Your task to perform on an android device: Search for dell xps on bestbuy.com, select the first entry, add it to the cart, then select checkout. Image 0: 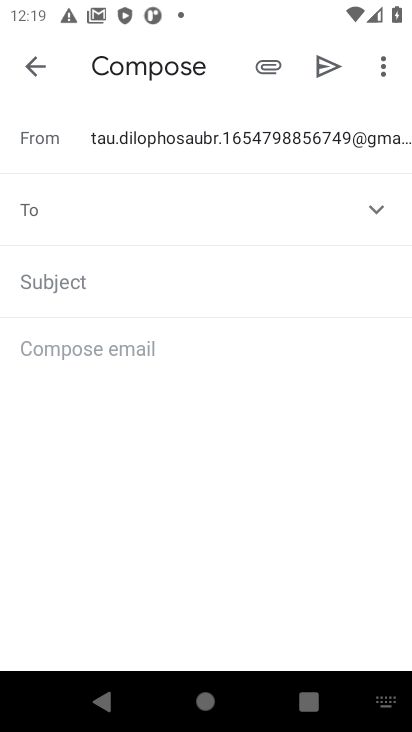
Step 0: press home button
Your task to perform on an android device: Search for dell xps on bestbuy.com, select the first entry, add it to the cart, then select checkout. Image 1: 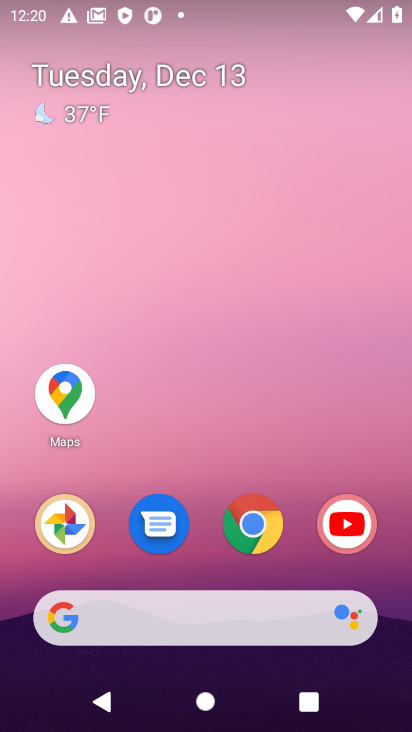
Step 1: click (248, 522)
Your task to perform on an android device: Search for dell xps on bestbuy.com, select the first entry, add it to the cart, then select checkout. Image 2: 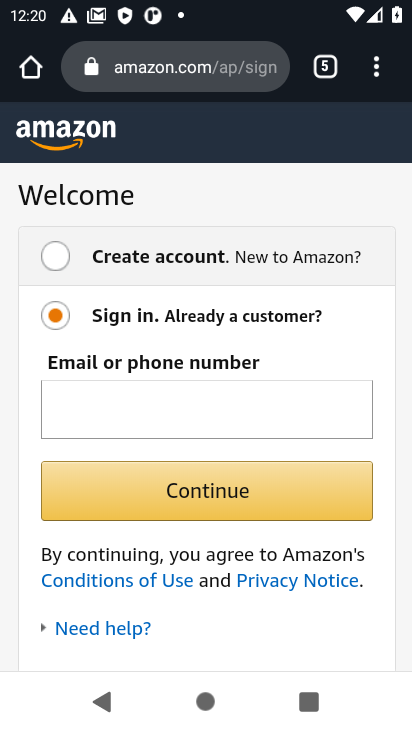
Step 2: click (209, 70)
Your task to perform on an android device: Search for dell xps on bestbuy.com, select the first entry, add it to the cart, then select checkout. Image 3: 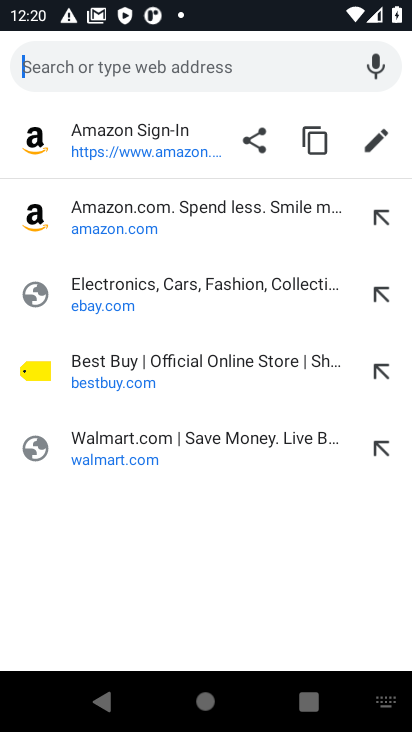
Step 3: click (81, 363)
Your task to perform on an android device: Search for dell xps on bestbuy.com, select the first entry, add it to the cart, then select checkout. Image 4: 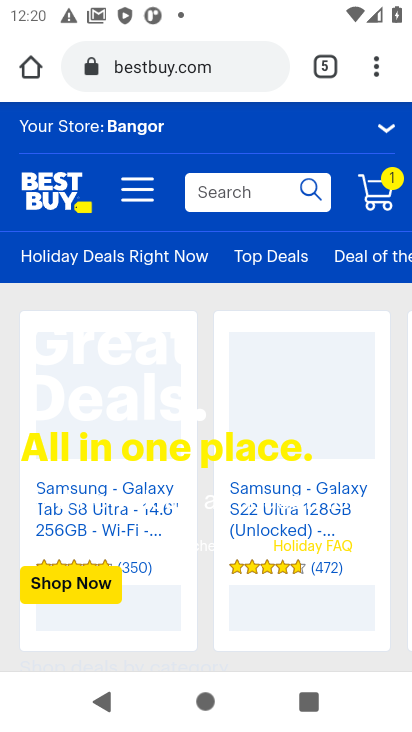
Step 4: click (219, 188)
Your task to perform on an android device: Search for dell xps on bestbuy.com, select the first entry, add it to the cart, then select checkout. Image 5: 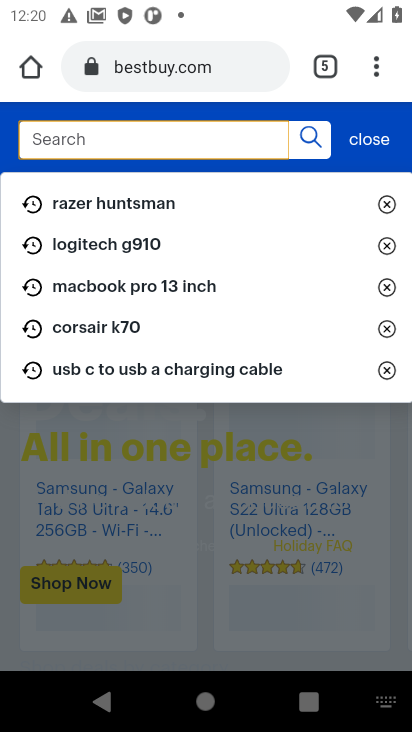
Step 5: type "dell xps"
Your task to perform on an android device: Search for dell xps on bestbuy.com, select the first entry, add it to the cart, then select checkout. Image 6: 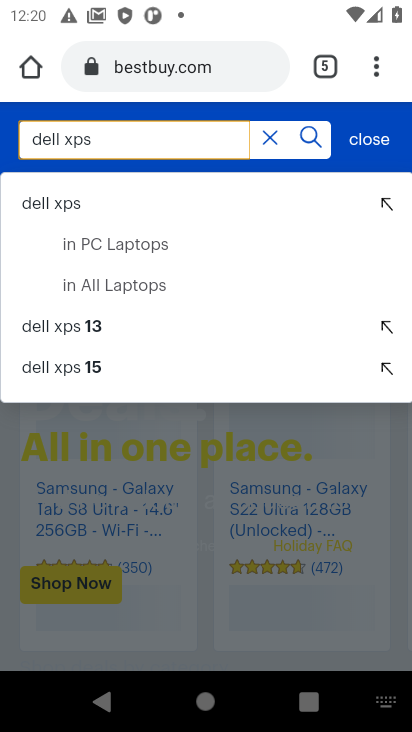
Step 6: click (53, 208)
Your task to perform on an android device: Search for dell xps on bestbuy.com, select the first entry, add it to the cart, then select checkout. Image 7: 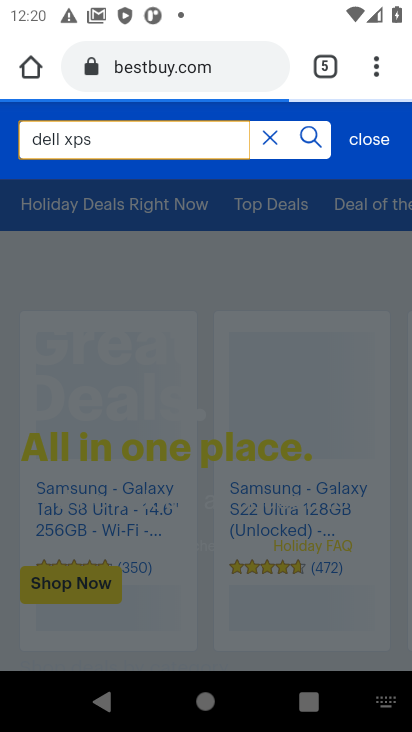
Step 7: click (309, 136)
Your task to perform on an android device: Search for dell xps on bestbuy.com, select the first entry, add it to the cart, then select checkout. Image 8: 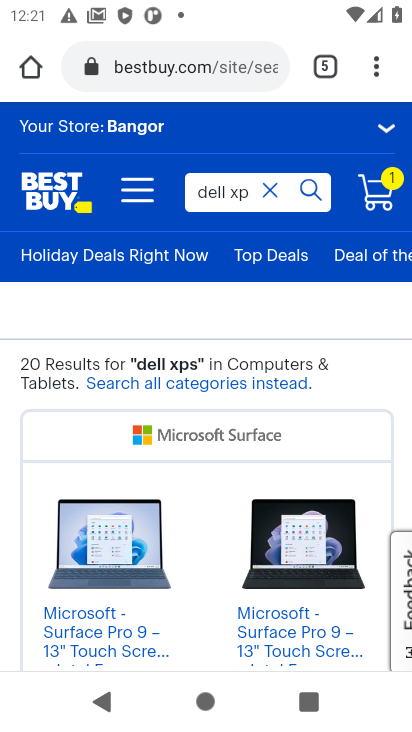
Step 8: drag from (190, 499) to (184, 185)
Your task to perform on an android device: Search for dell xps on bestbuy.com, select the first entry, add it to the cart, then select checkout. Image 9: 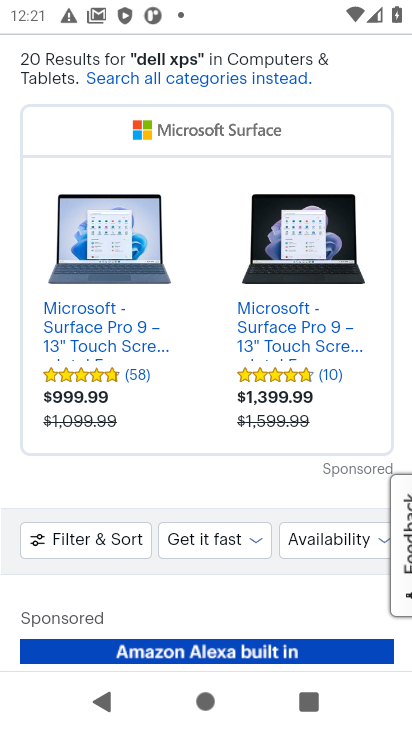
Step 9: drag from (146, 474) to (171, 230)
Your task to perform on an android device: Search for dell xps on bestbuy.com, select the first entry, add it to the cart, then select checkout. Image 10: 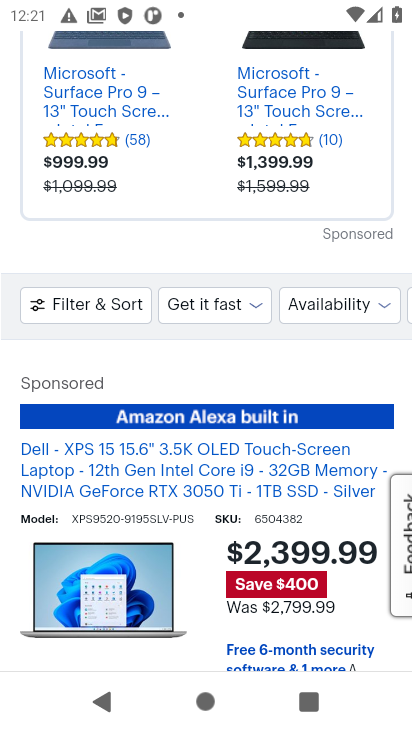
Step 10: drag from (166, 469) to (165, 265)
Your task to perform on an android device: Search for dell xps on bestbuy.com, select the first entry, add it to the cart, then select checkout. Image 11: 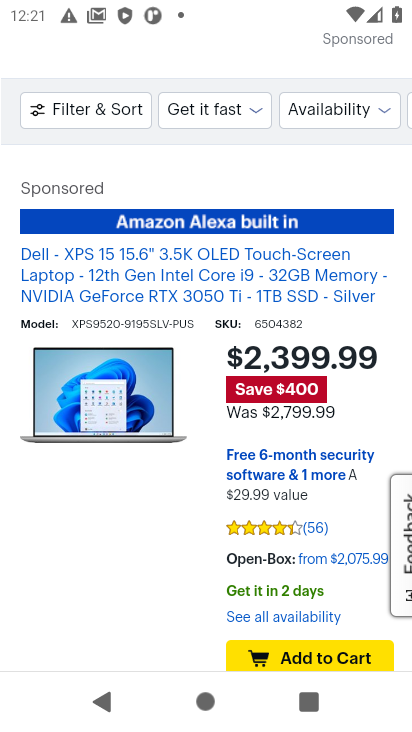
Step 11: click (299, 652)
Your task to perform on an android device: Search for dell xps on bestbuy.com, select the first entry, add it to the cart, then select checkout. Image 12: 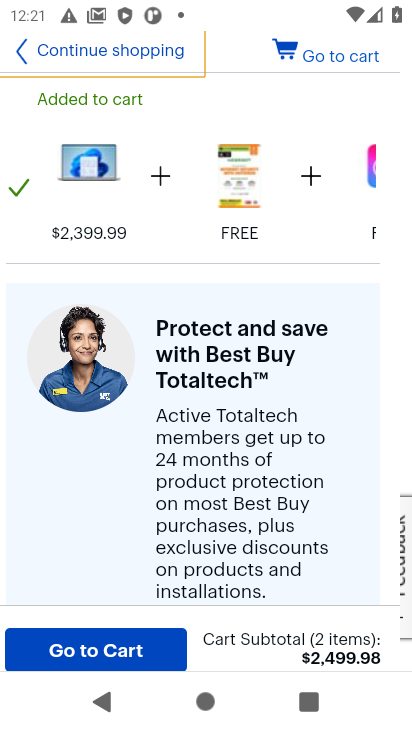
Step 12: click (350, 57)
Your task to perform on an android device: Search for dell xps on bestbuy.com, select the first entry, add it to the cart, then select checkout. Image 13: 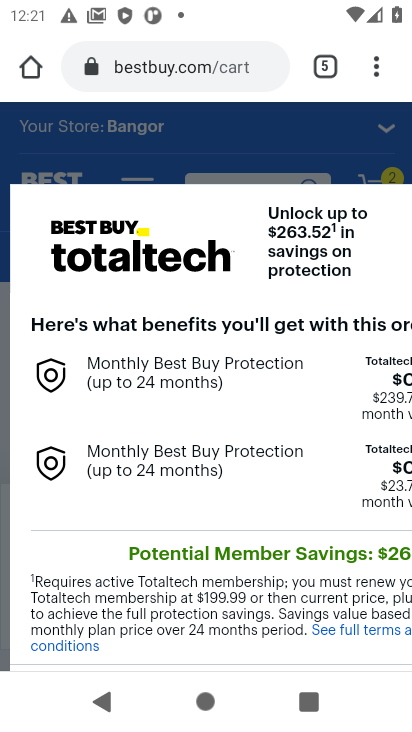
Step 13: click (343, 142)
Your task to perform on an android device: Search for dell xps on bestbuy.com, select the first entry, add it to the cart, then select checkout. Image 14: 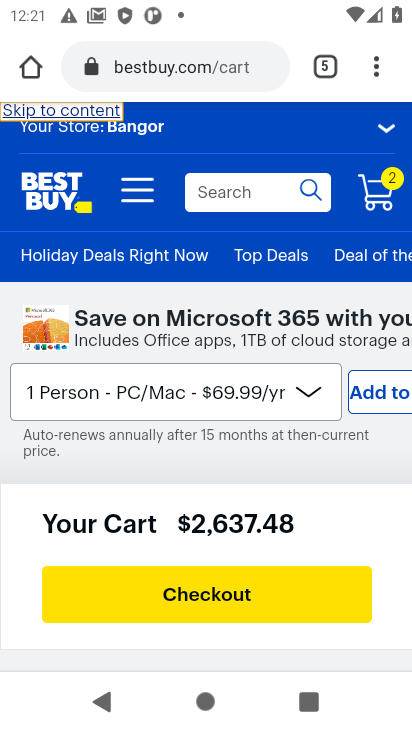
Step 14: click (218, 593)
Your task to perform on an android device: Search for dell xps on bestbuy.com, select the first entry, add it to the cart, then select checkout. Image 15: 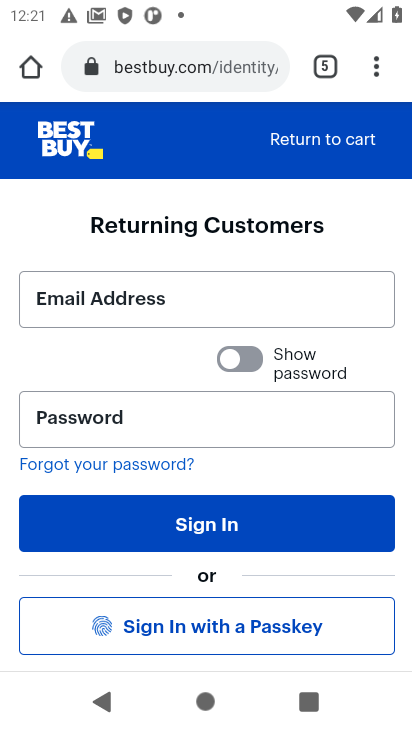
Step 15: task complete